Your task to perform on an android device: Clear the cart on costco.com. Image 0: 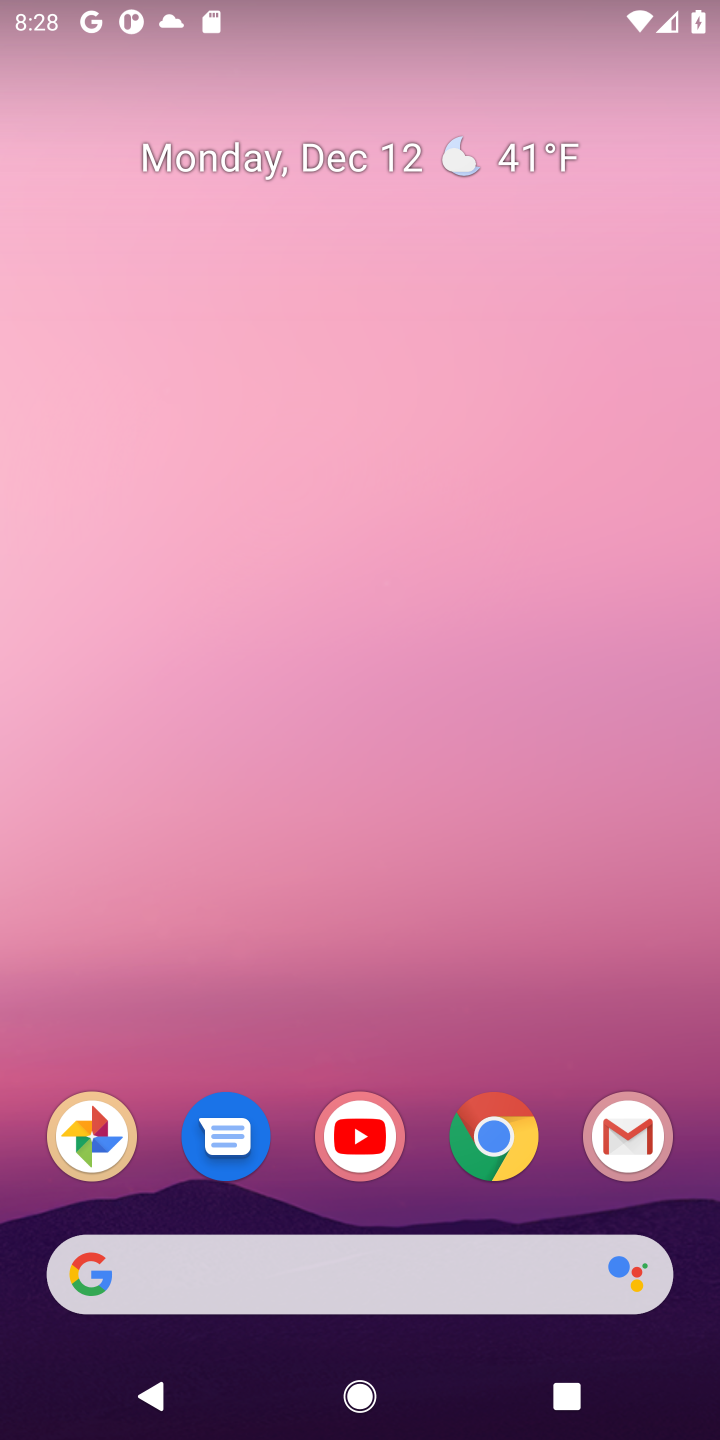
Step 0: click (498, 1135)
Your task to perform on an android device: Clear the cart on costco.com. Image 1: 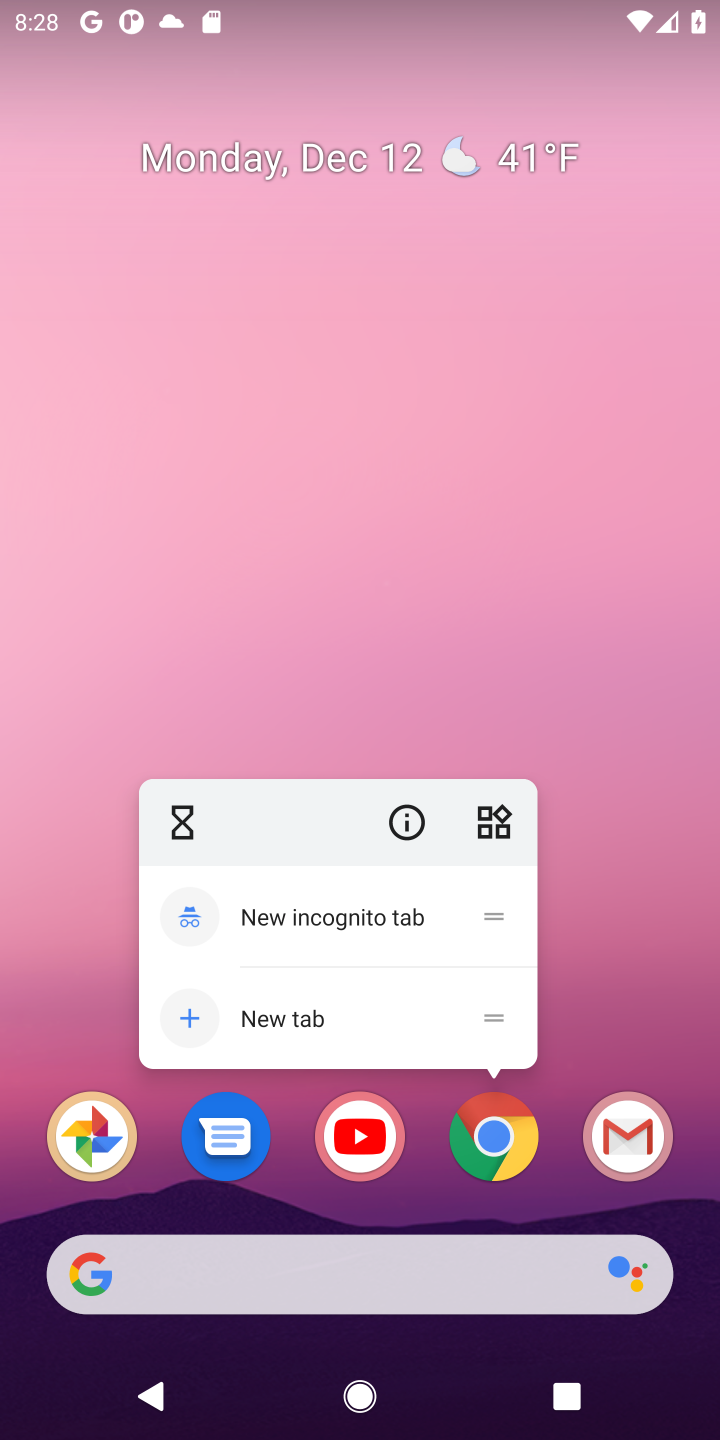
Step 1: click (498, 1145)
Your task to perform on an android device: Clear the cart on costco.com. Image 2: 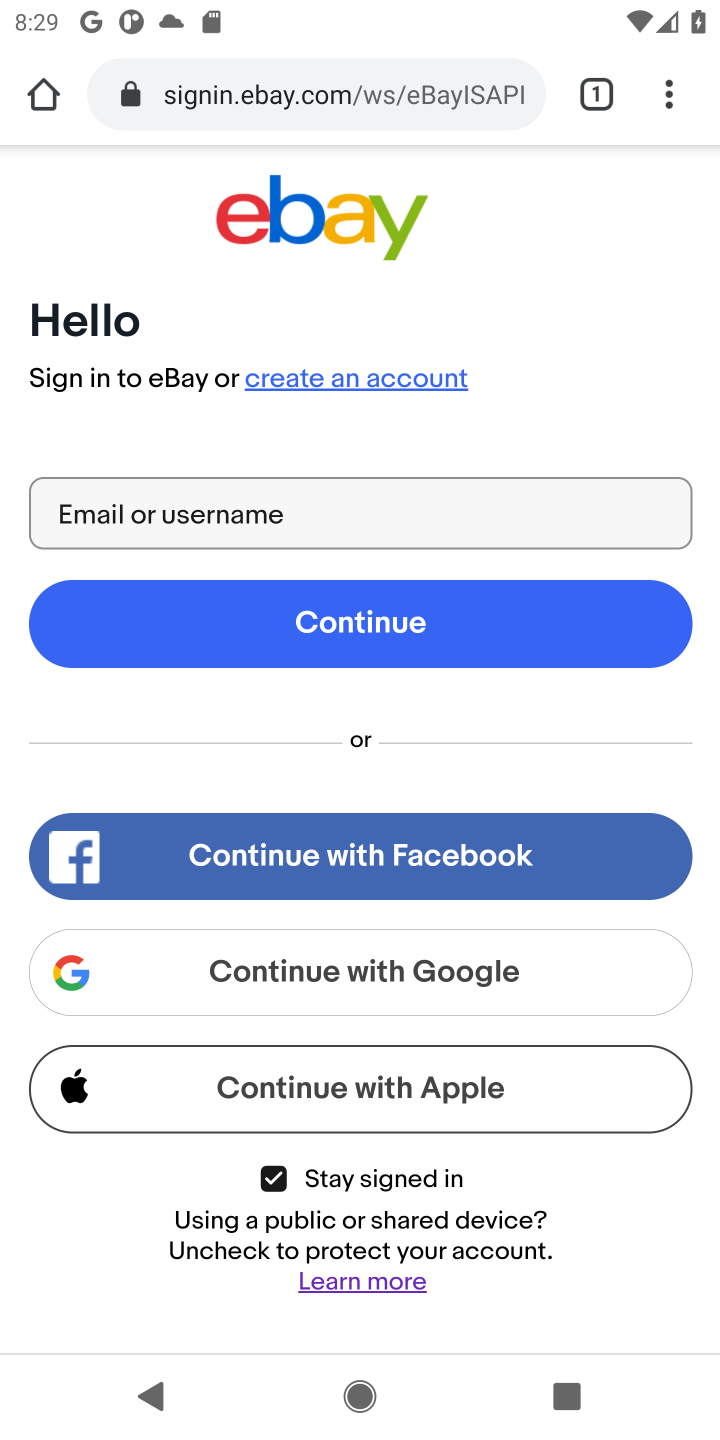
Step 2: click (272, 100)
Your task to perform on an android device: Clear the cart on costco.com. Image 3: 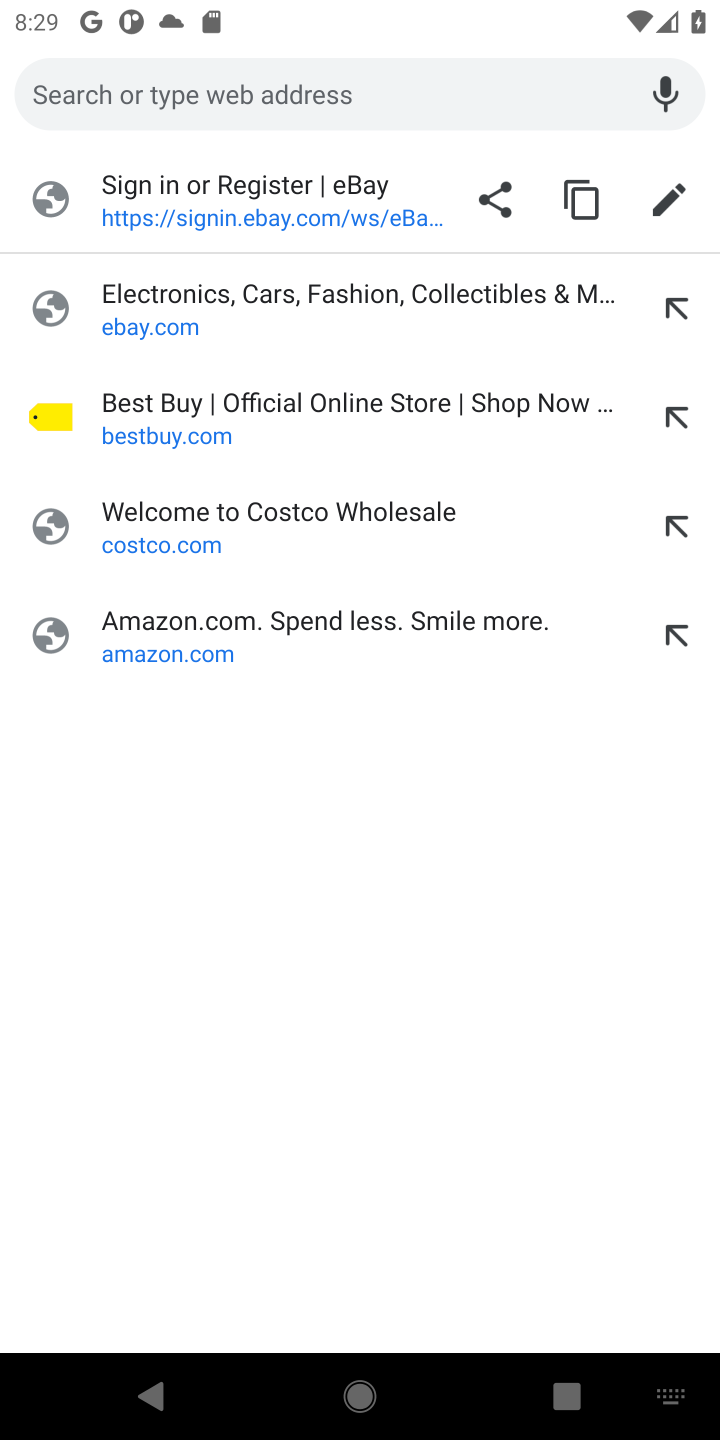
Step 3: click (136, 524)
Your task to perform on an android device: Clear the cart on costco.com. Image 4: 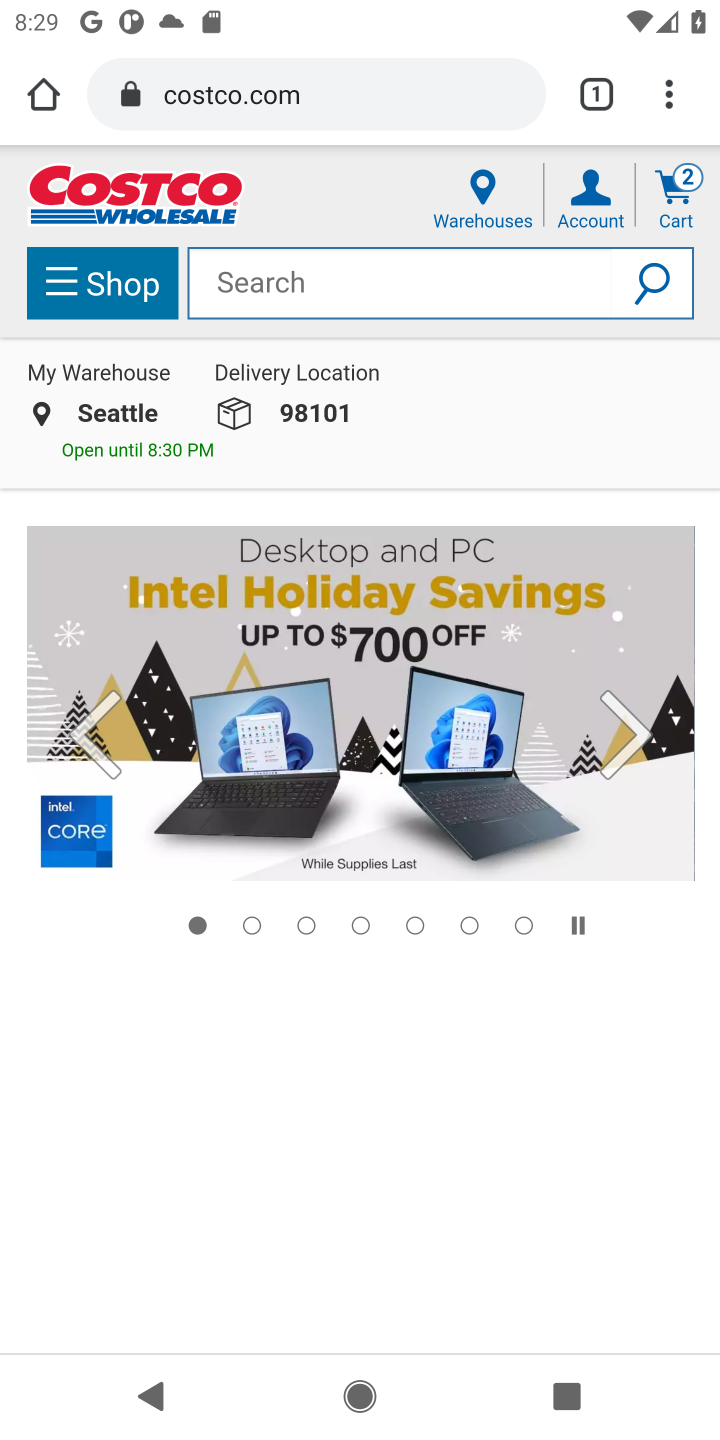
Step 4: click (664, 199)
Your task to perform on an android device: Clear the cart on costco.com. Image 5: 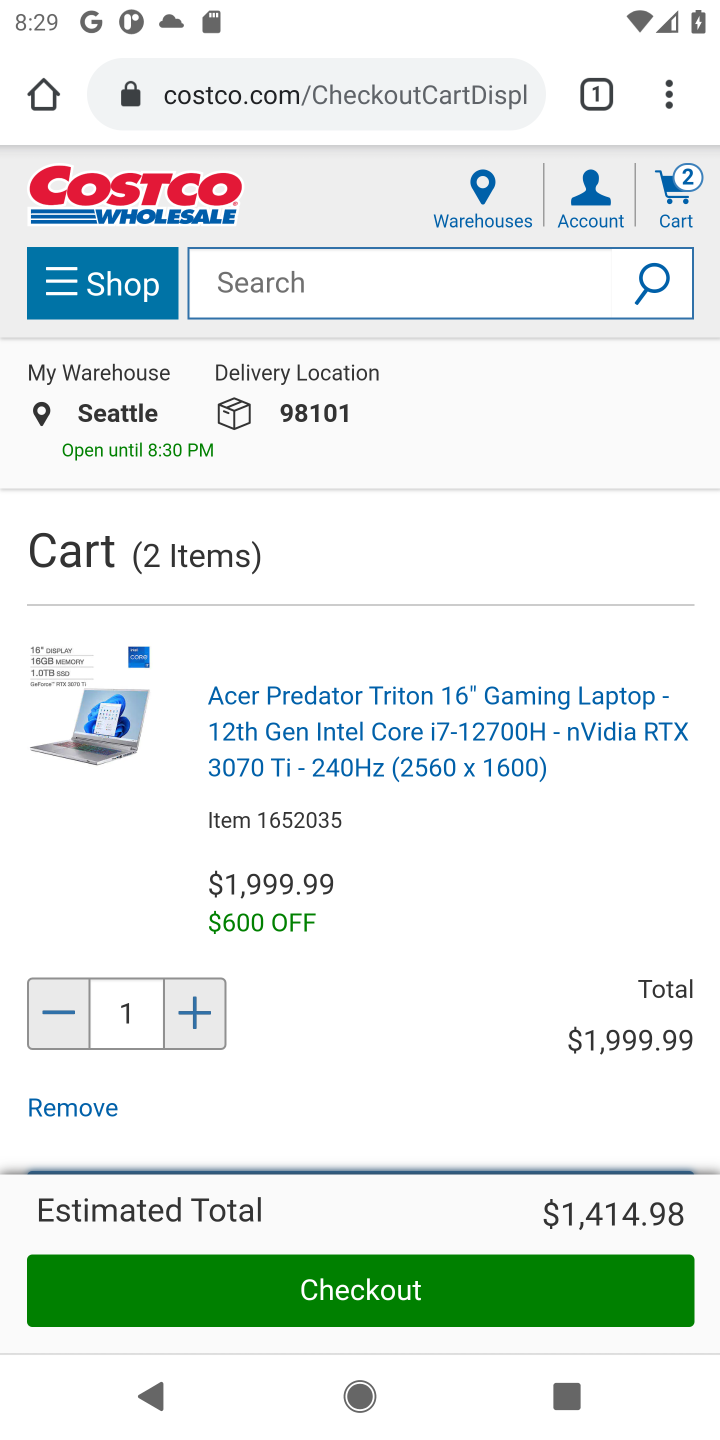
Step 5: drag from (385, 979) to (418, 488)
Your task to perform on an android device: Clear the cart on costco.com. Image 6: 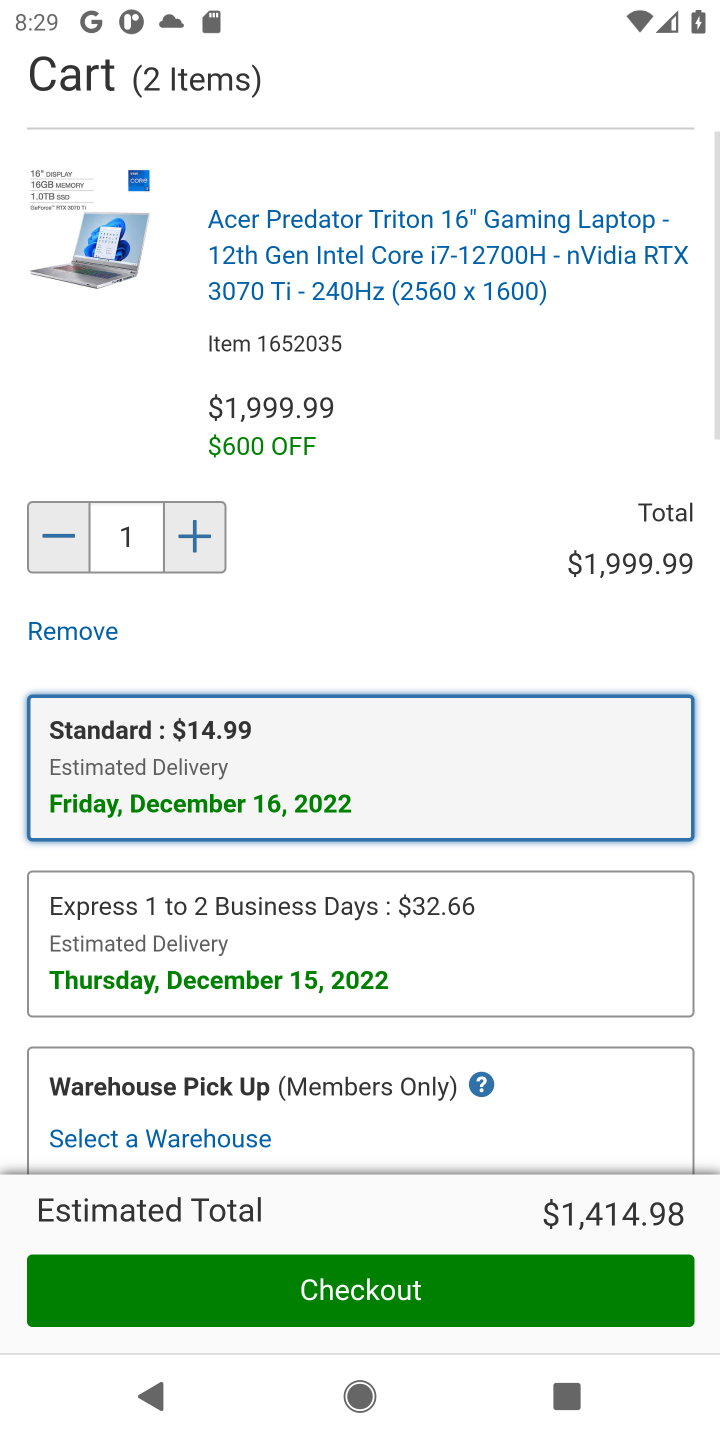
Step 6: drag from (413, 869) to (388, 420)
Your task to perform on an android device: Clear the cart on costco.com. Image 7: 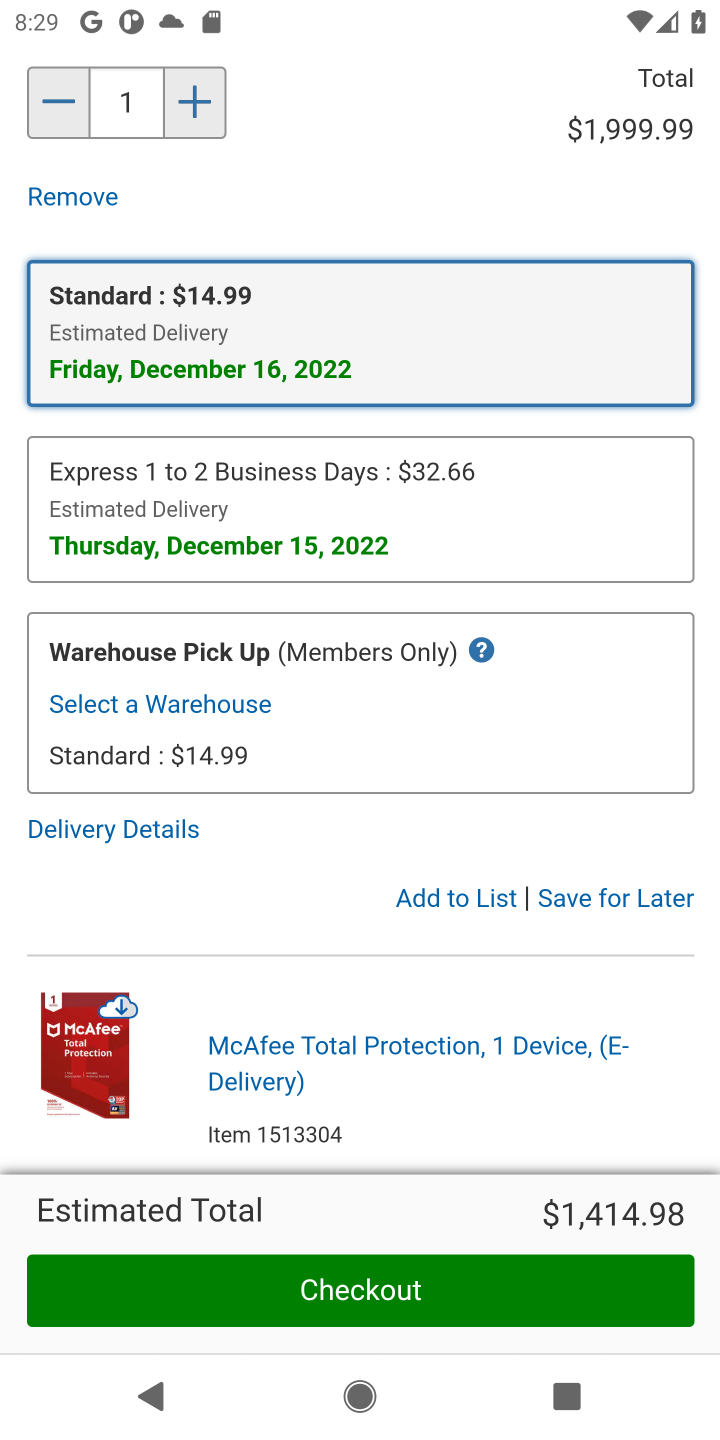
Step 7: click (610, 904)
Your task to perform on an android device: Clear the cart on costco.com. Image 8: 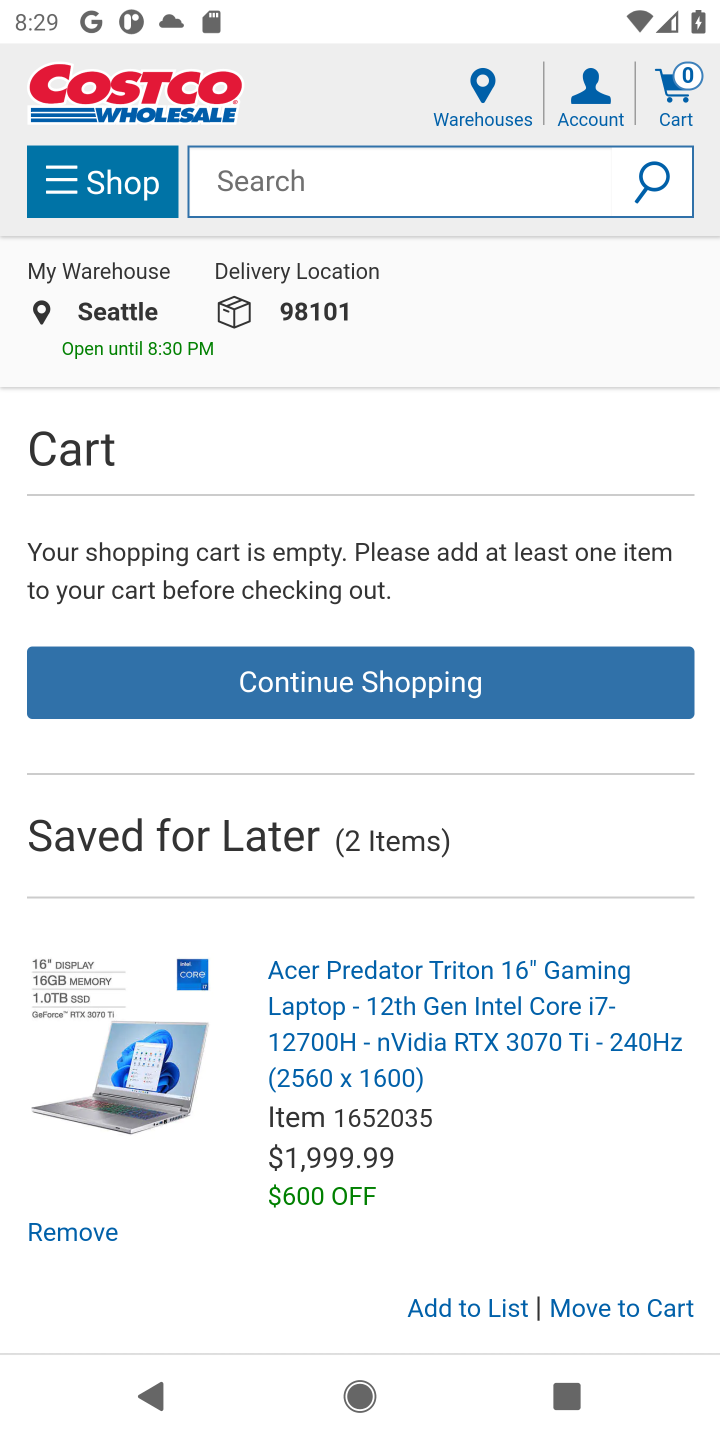
Step 8: task complete